Your task to perform on an android device: turn off location history Image 0: 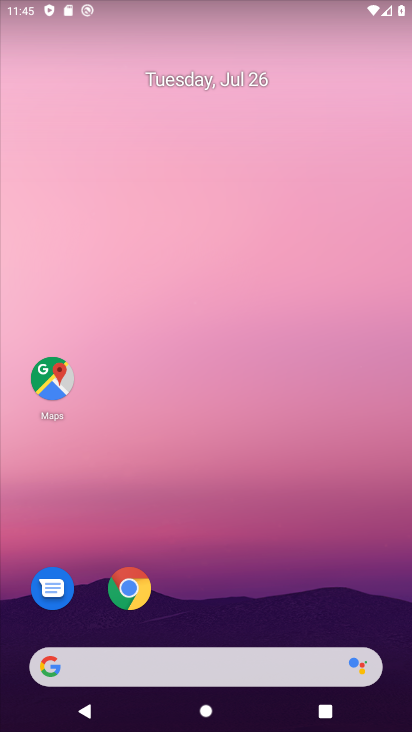
Step 0: drag from (67, 673) to (258, 181)
Your task to perform on an android device: turn off location history Image 1: 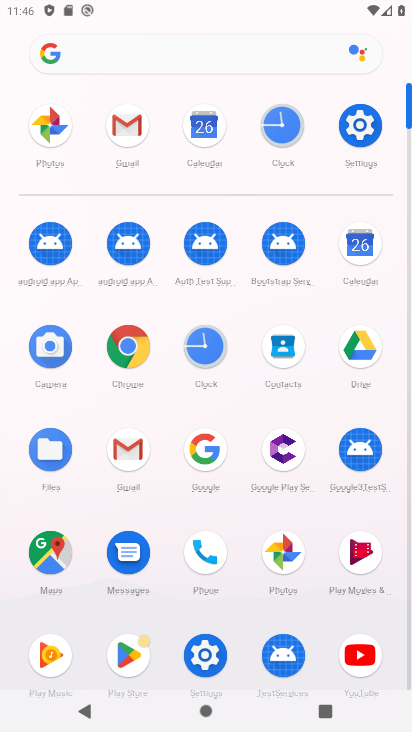
Step 1: click (208, 649)
Your task to perform on an android device: turn off location history Image 2: 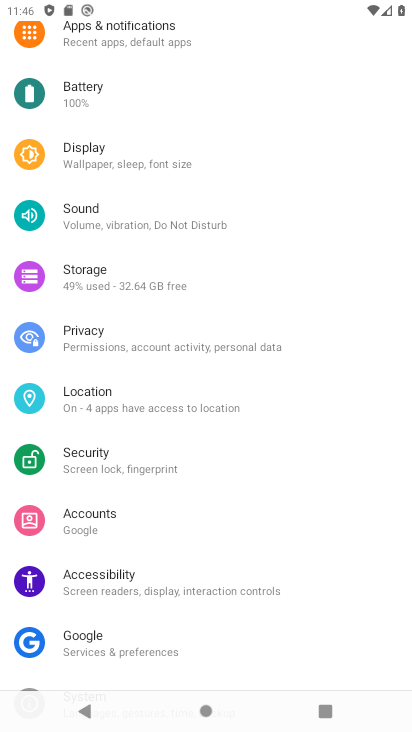
Step 2: click (106, 390)
Your task to perform on an android device: turn off location history Image 3: 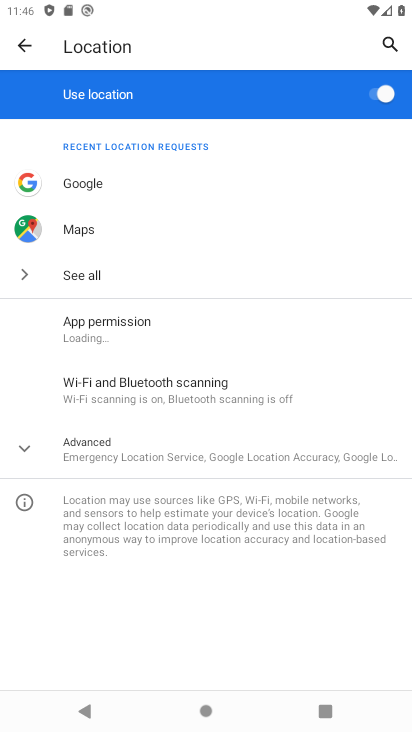
Step 3: click (89, 445)
Your task to perform on an android device: turn off location history Image 4: 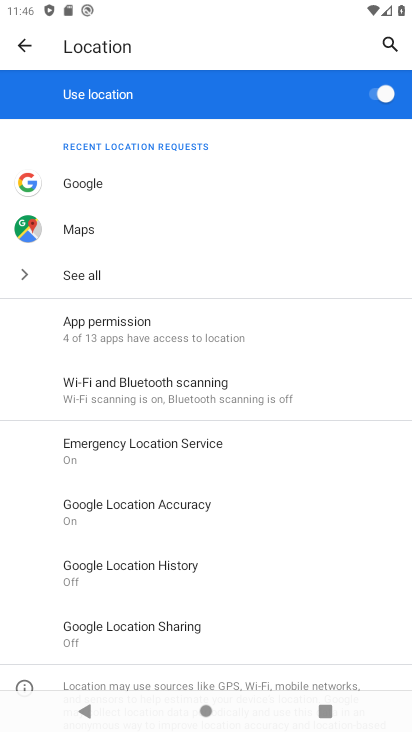
Step 4: task complete